Your task to perform on an android device: turn on airplane mode Image 0: 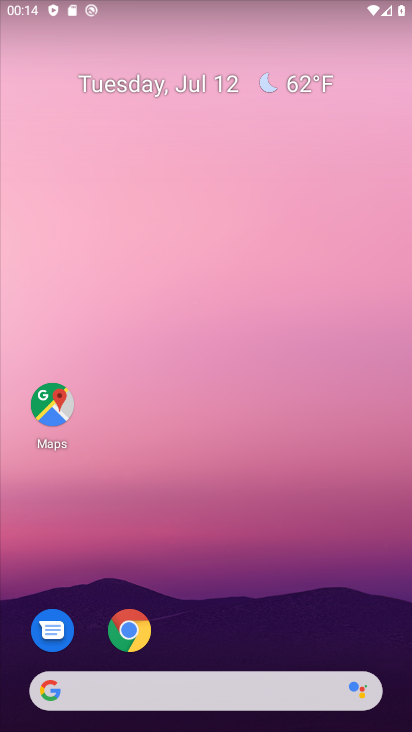
Step 0: drag from (226, 635) to (240, 179)
Your task to perform on an android device: turn on airplane mode Image 1: 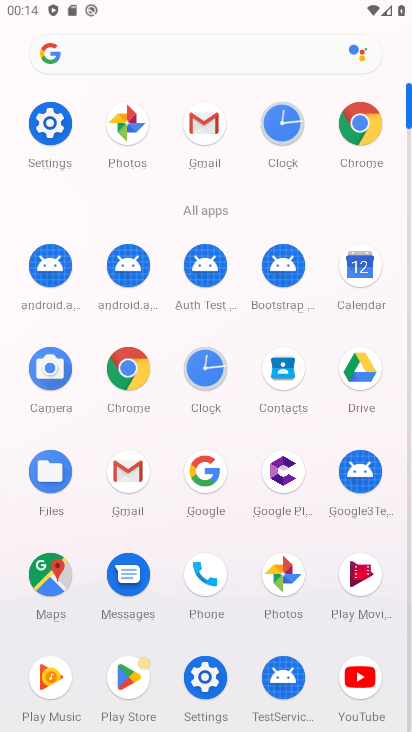
Step 1: click (49, 121)
Your task to perform on an android device: turn on airplane mode Image 2: 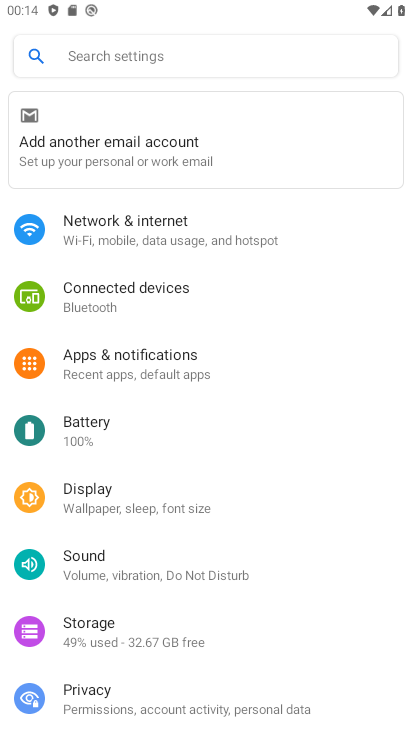
Step 2: click (173, 228)
Your task to perform on an android device: turn on airplane mode Image 3: 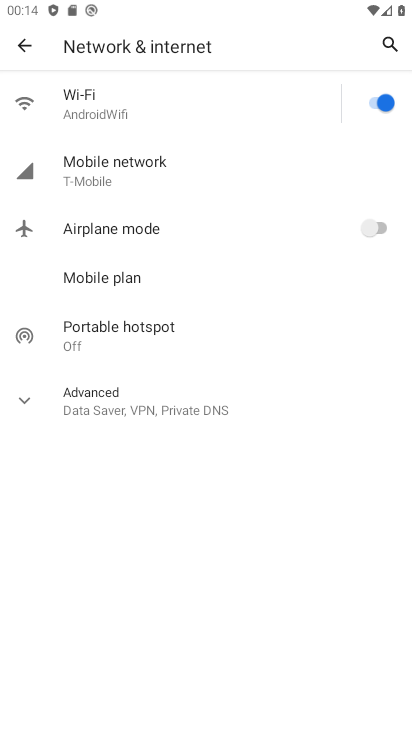
Step 3: click (379, 229)
Your task to perform on an android device: turn on airplane mode Image 4: 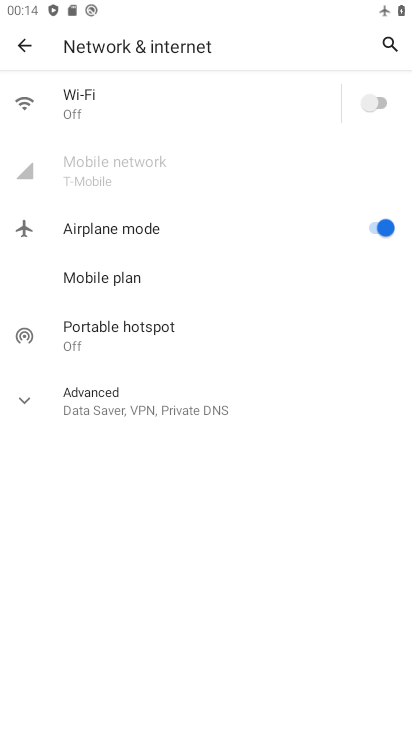
Step 4: task complete